Your task to perform on an android device: Open the Play Movies app and select the watchlist tab. Image 0: 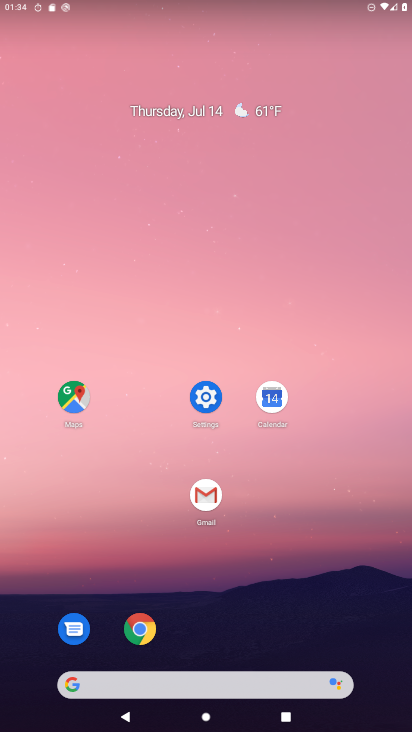
Step 0: press home button
Your task to perform on an android device: Open the Play Movies app and select the watchlist tab. Image 1: 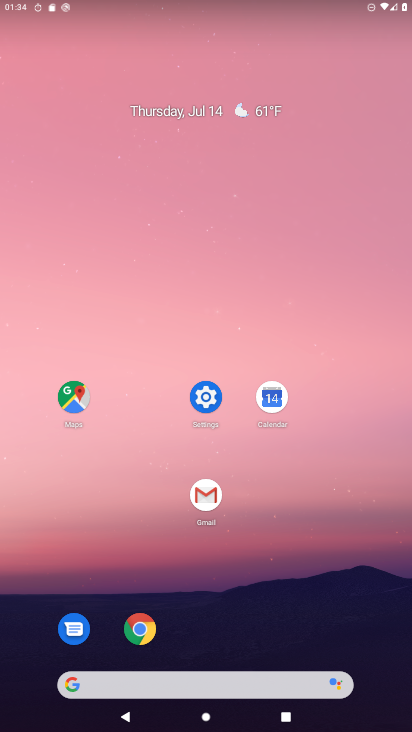
Step 1: drag from (388, 670) to (323, 136)
Your task to perform on an android device: Open the Play Movies app and select the watchlist tab. Image 2: 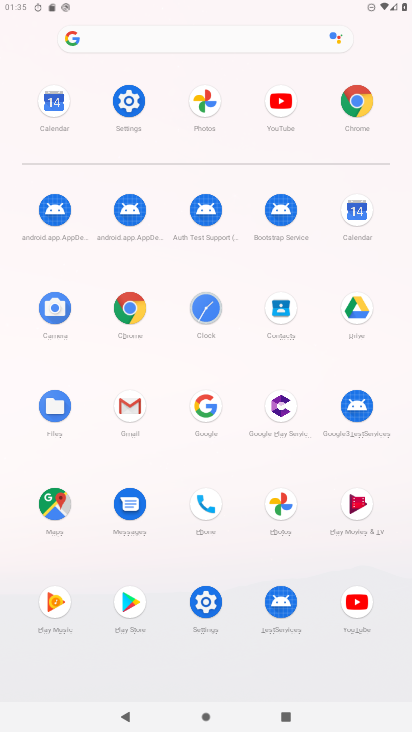
Step 2: click (370, 507)
Your task to perform on an android device: Open the Play Movies app and select the watchlist tab. Image 3: 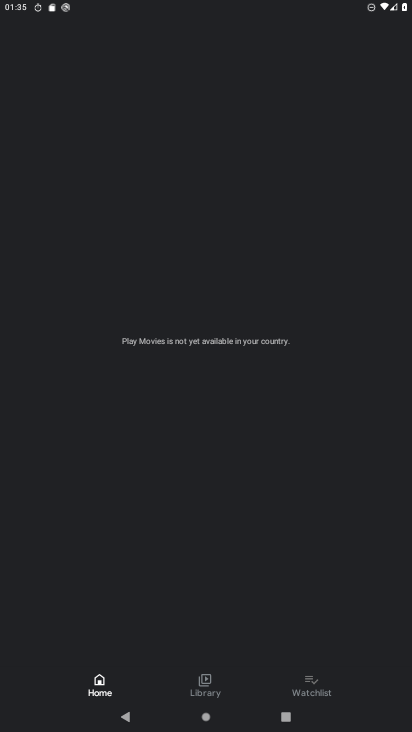
Step 3: click (308, 682)
Your task to perform on an android device: Open the Play Movies app and select the watchlist tab. Image 4: 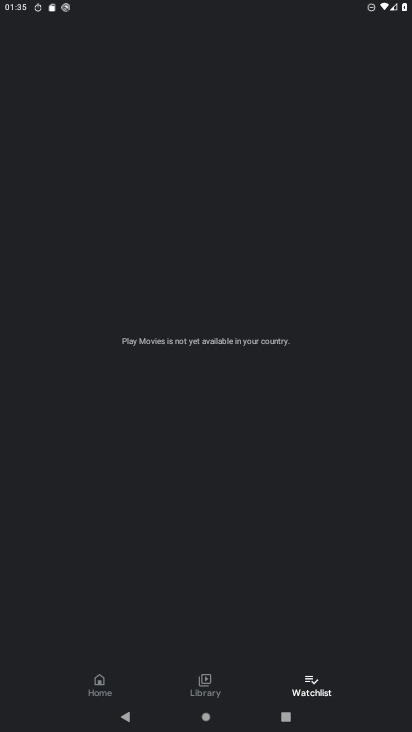
Step 4: task complete